Your task to perform on an android device: Open maps Image 0: 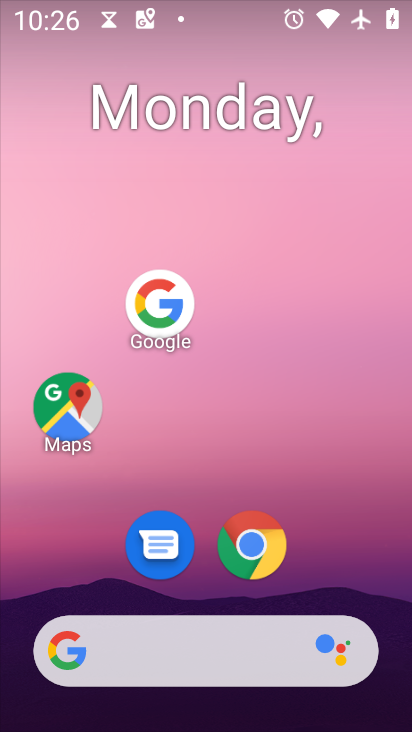
Step 0: press home button
Your task to perform on an android device: Open maps Image 1: 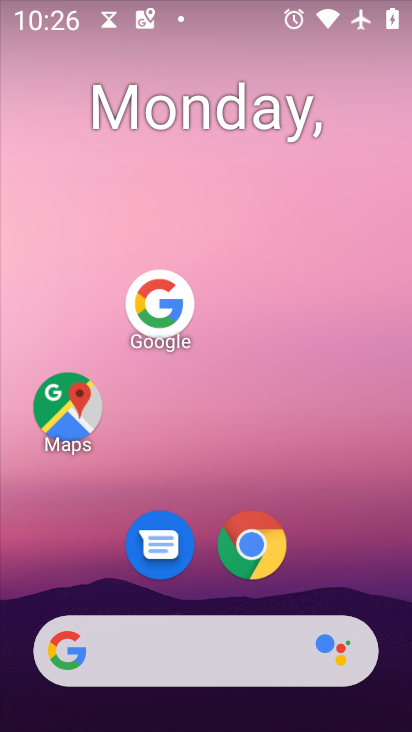
Step 1: click (68, 418)
Your task to perform on an android device: Open maps Image 2: 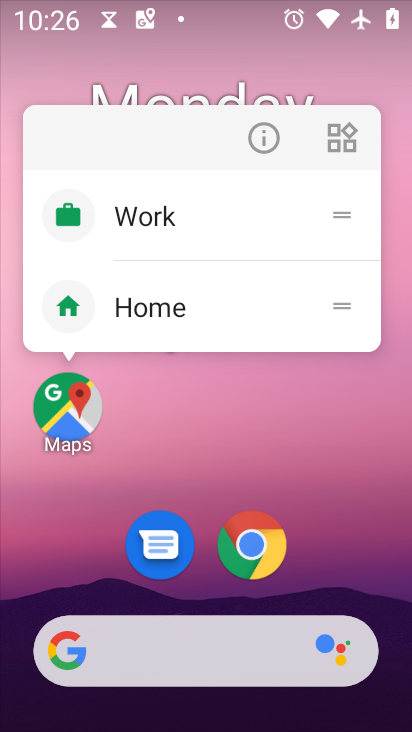
Step 2: click (68, 416)
Your task to perform on an android device: Open maps Image 3: 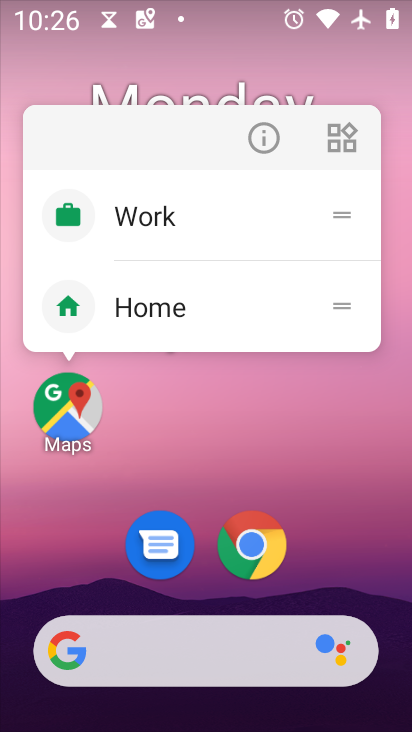
Step 3: click (68, 416)
Your task to perform on an android device: Open maps Image 4: 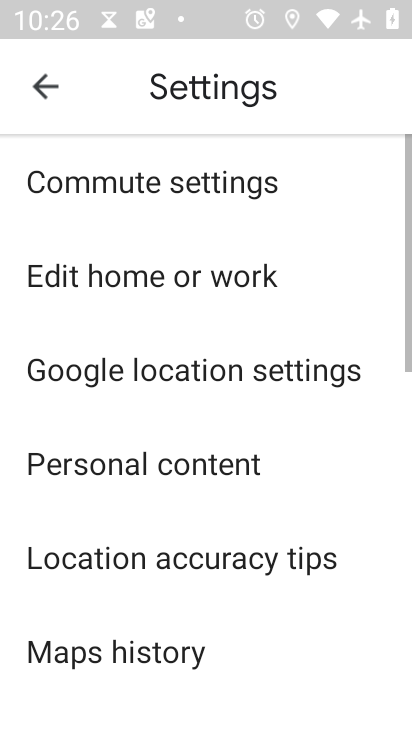
Step 4: click (42, 86)
Your task to perform on an android device: Open maps Image 5: 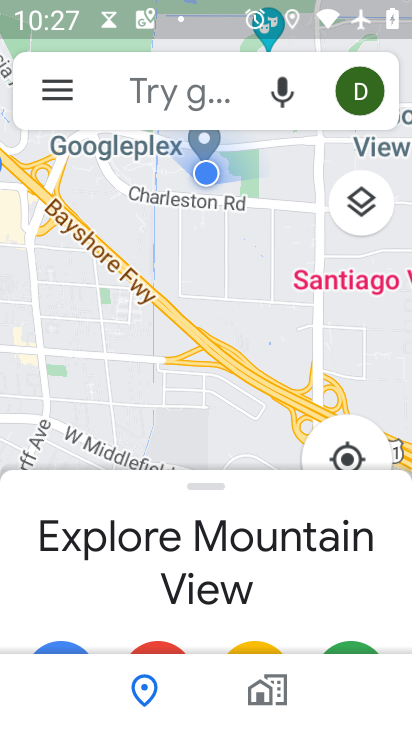
Step 5: task complete